Your task to perform on an android device: Go to internet settings Image 0: 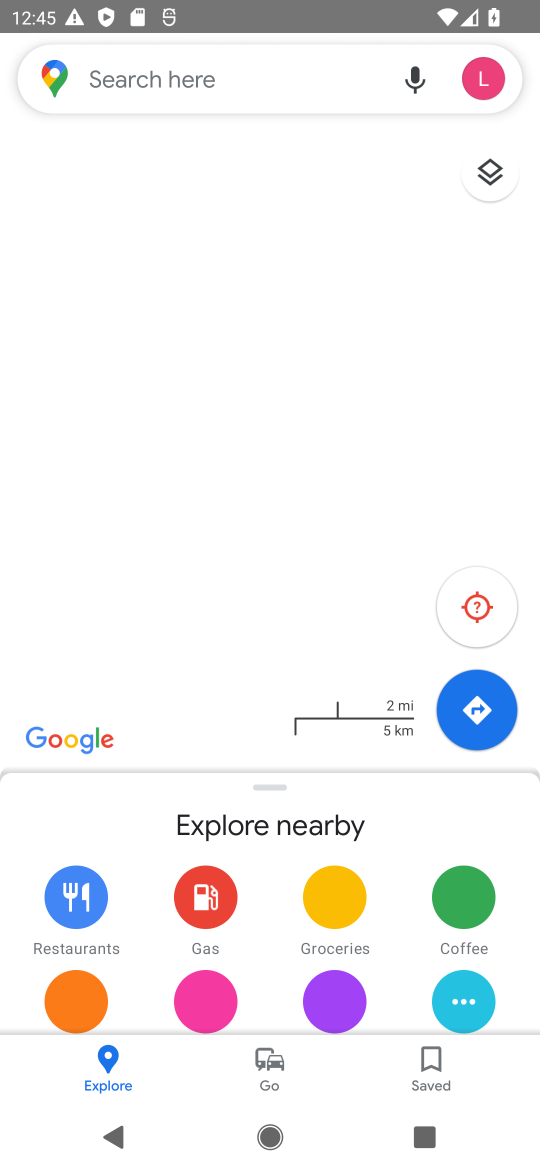
Step 0: press back button
Your task to perform on an android device: Go to internet settings Image 1: 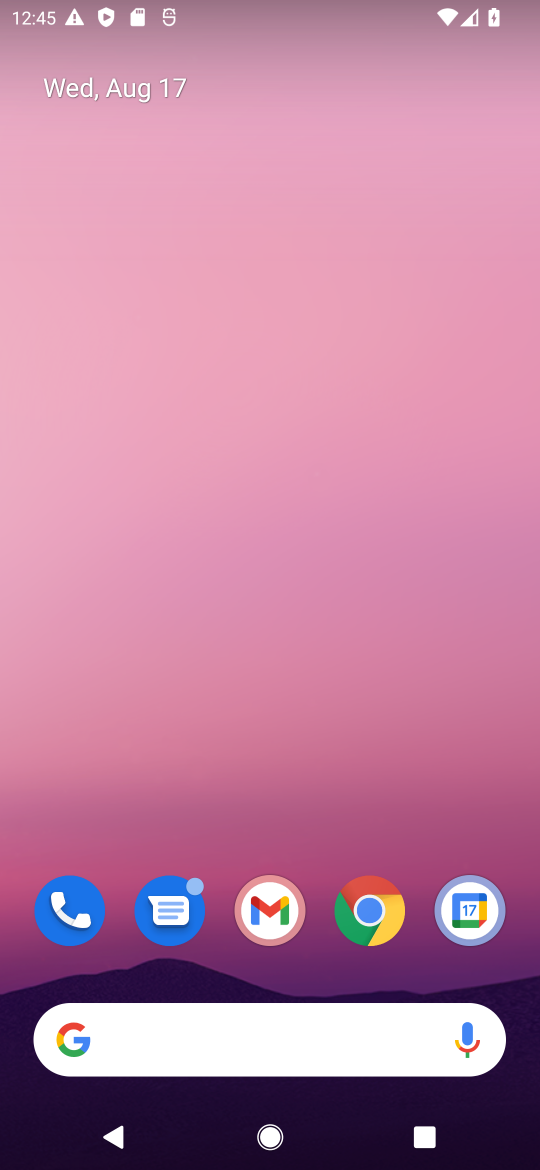
Step 1: press back button
Your task to perform on an android device: Go to internet settings Image 2: 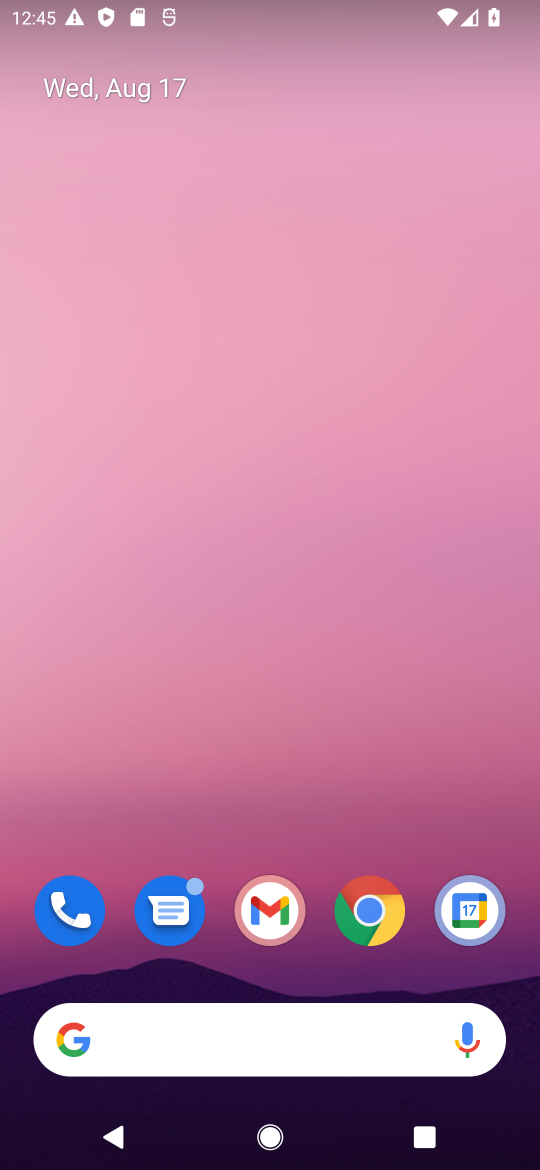
Step 2: drag from (265, 890) to (355, 118)
Your task to perform on an android device: Go to internet settings Image 3: 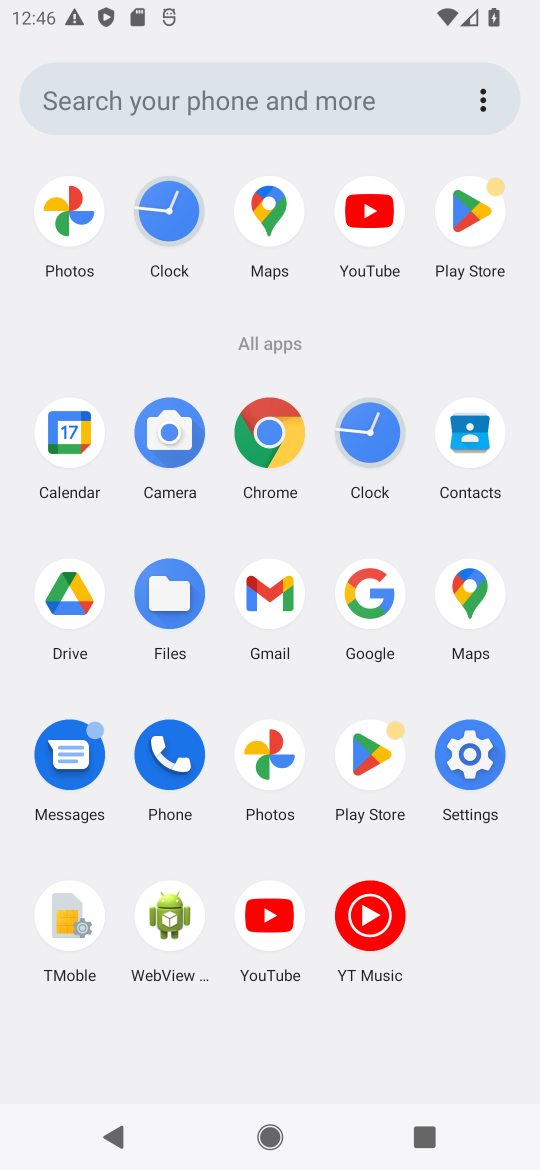
Step 3: click (458, 773)
Your task to perform on an android device: Go to internet settings Image 4: 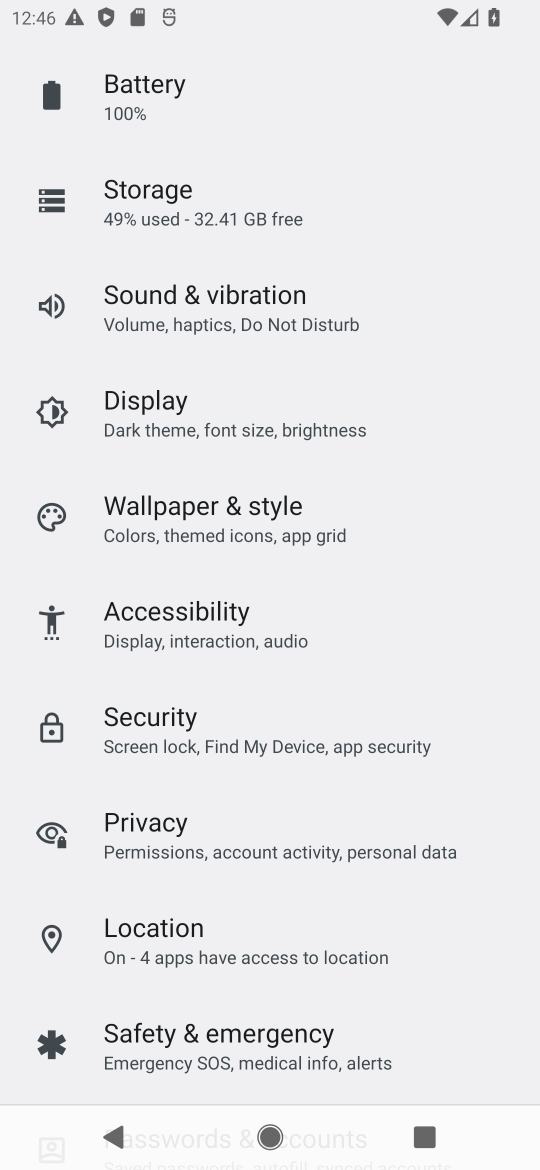
Step 4: drag from (351, 247) to (264, 1094)
Your task to perform on an android device: Go to internet settings Image 5: 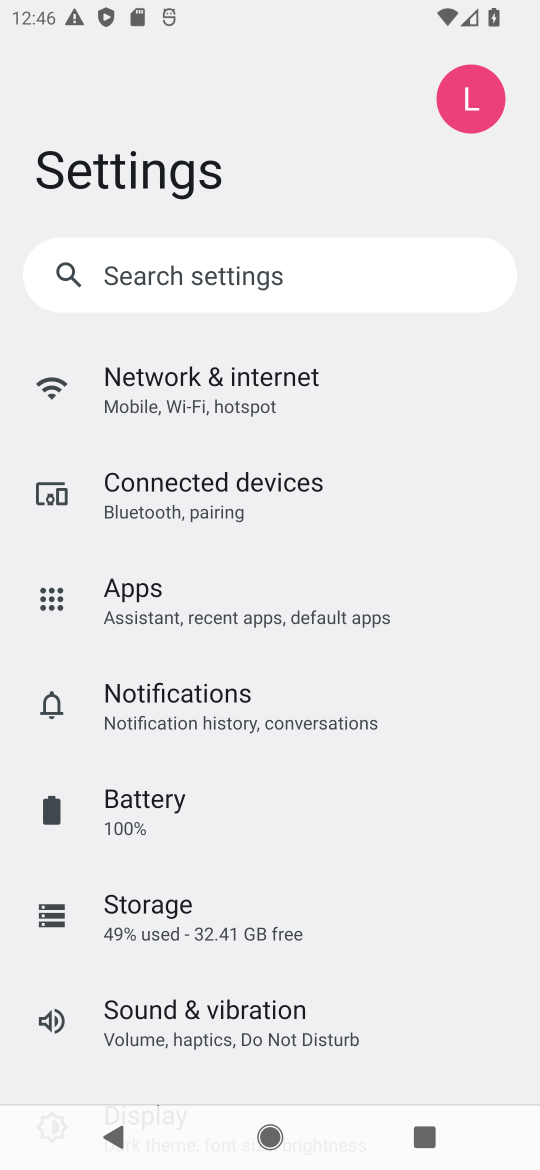
Step 5: click (256, 386)
Your task to perform on an android device: Go to internet settings Image 6: 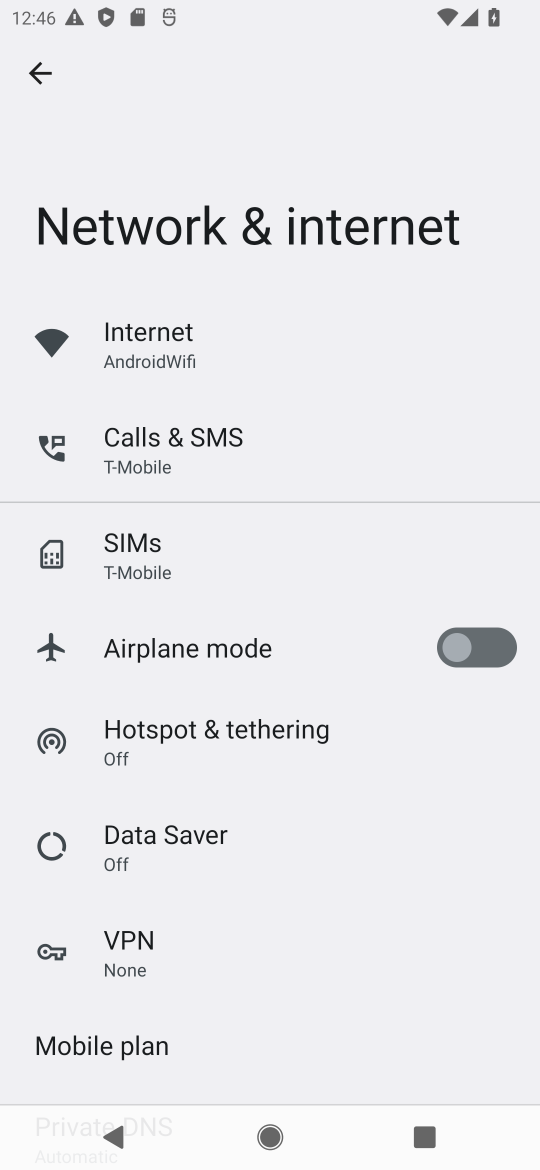
Step 6: click (156, 353)
Your task to perform on an android device: Go to internet settings Image 7: 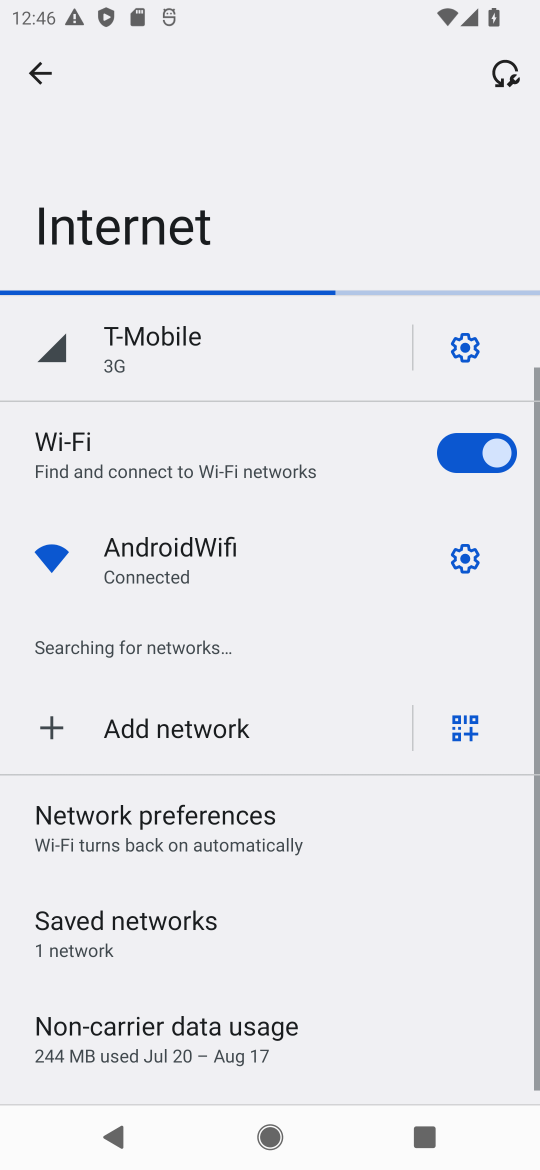
Step 7: task complete